Your task to perform on an android device: Toggle the flashlight Image 0: 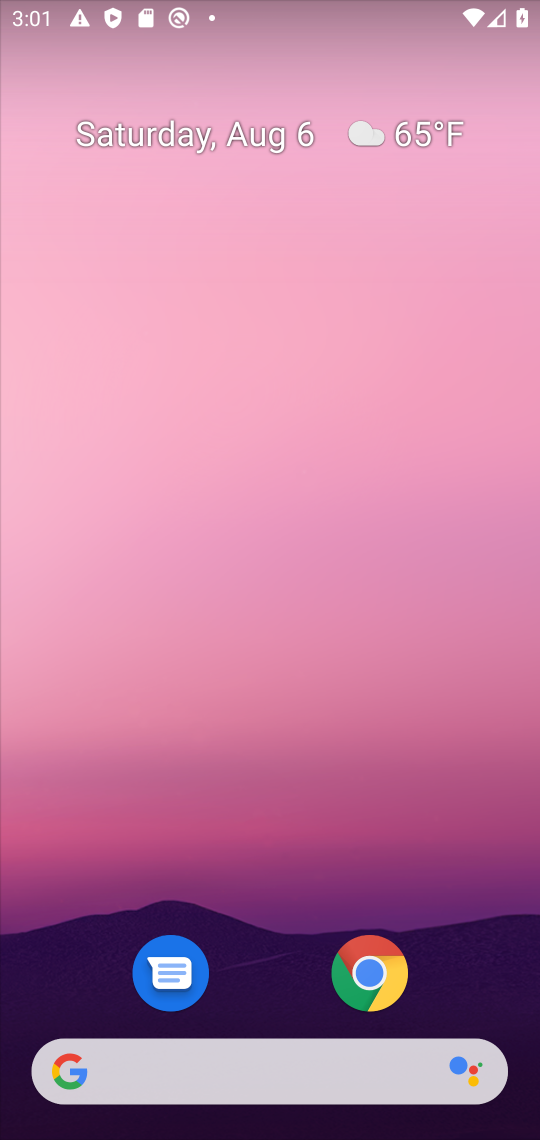
Step 0: drag from (267, 926) to (191, 340)
Your task to perform on an android device: Toggle the flashlight Image 1: 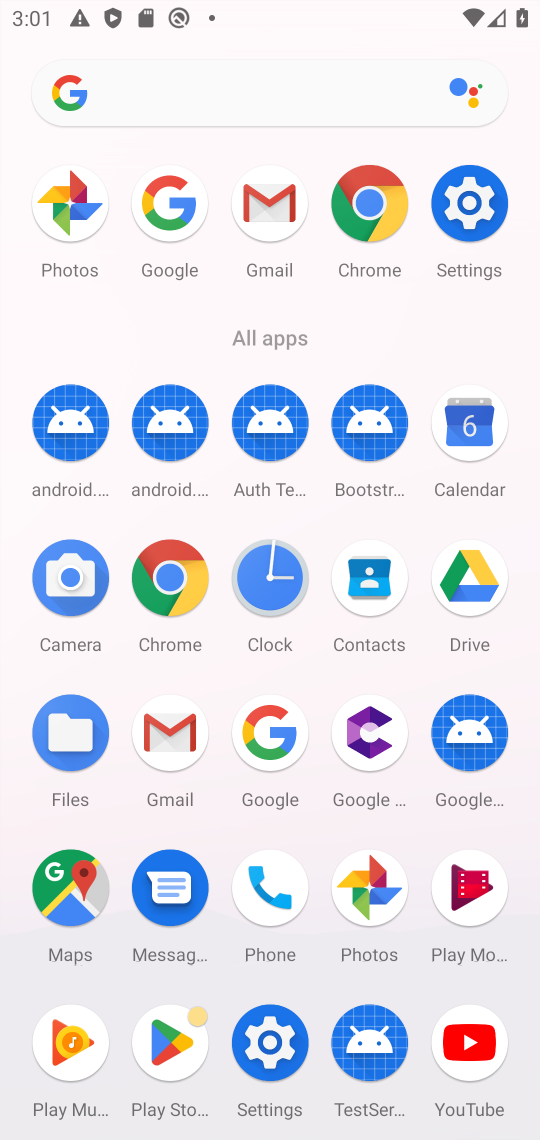
Step 1: click (461, 204)
Your task to perform on an android device: Toggle the flashlight Image 2: 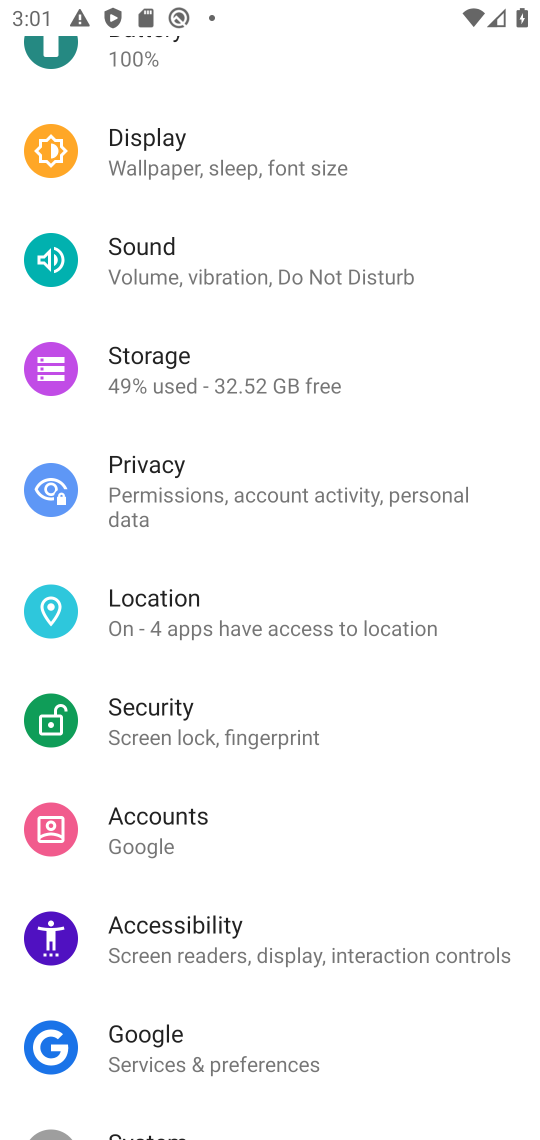
Step 2: task complete